Your task to perform on an android device: Is it going to rain this weekend? Image 0: 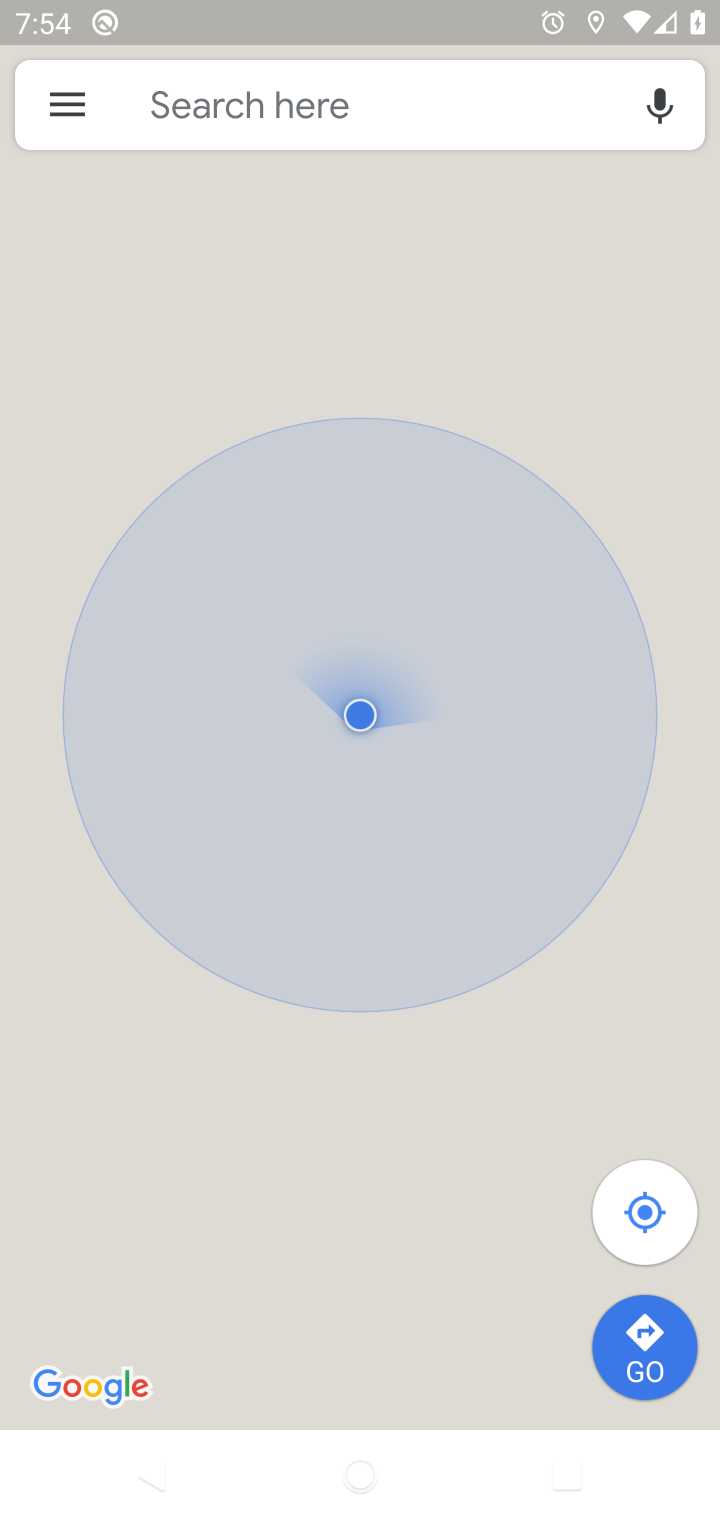
Step 0: press home button
Your task to perform on an android device: Is it going to rain this weekend? Image 1: 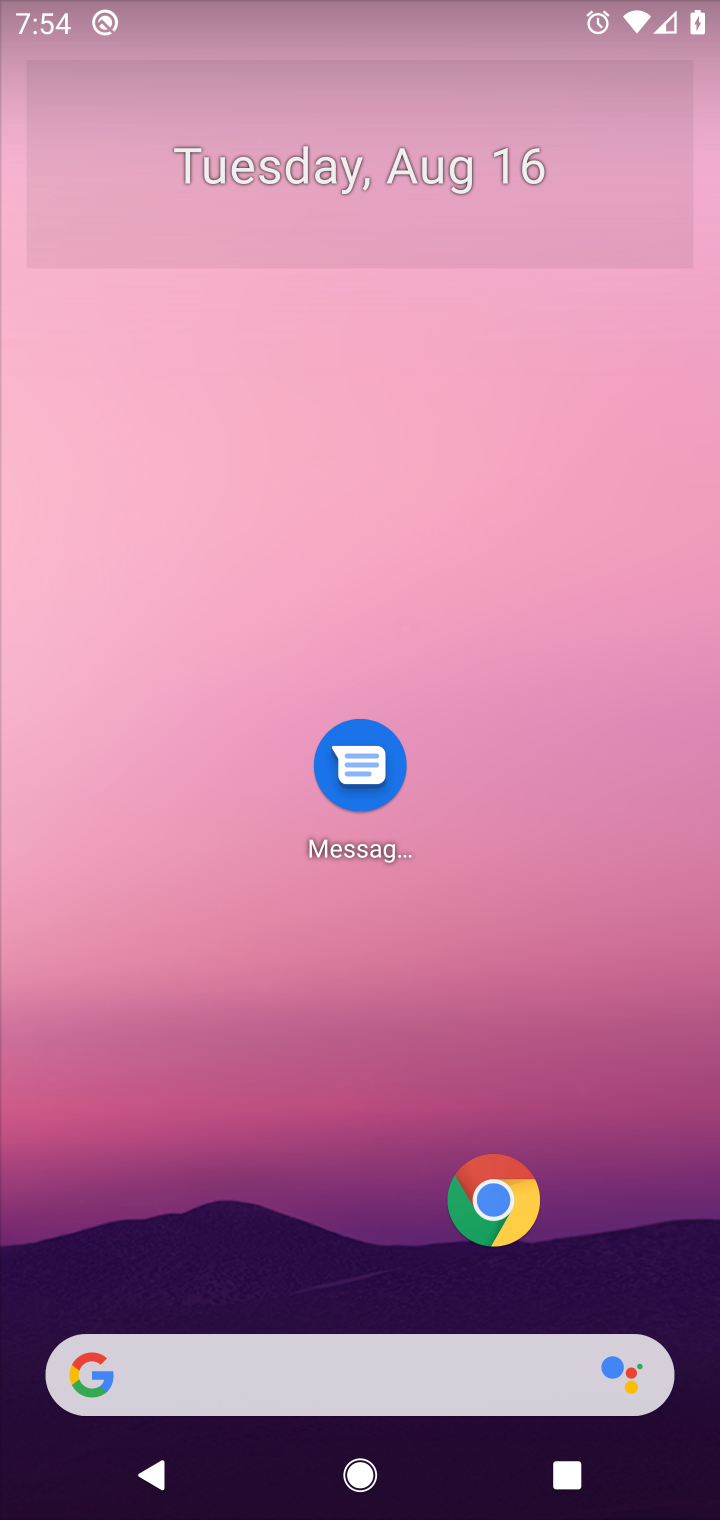
Step 1: click (255, 1365)
Your task to perform on an android device: Is it going to rain this weekend? Image 2: 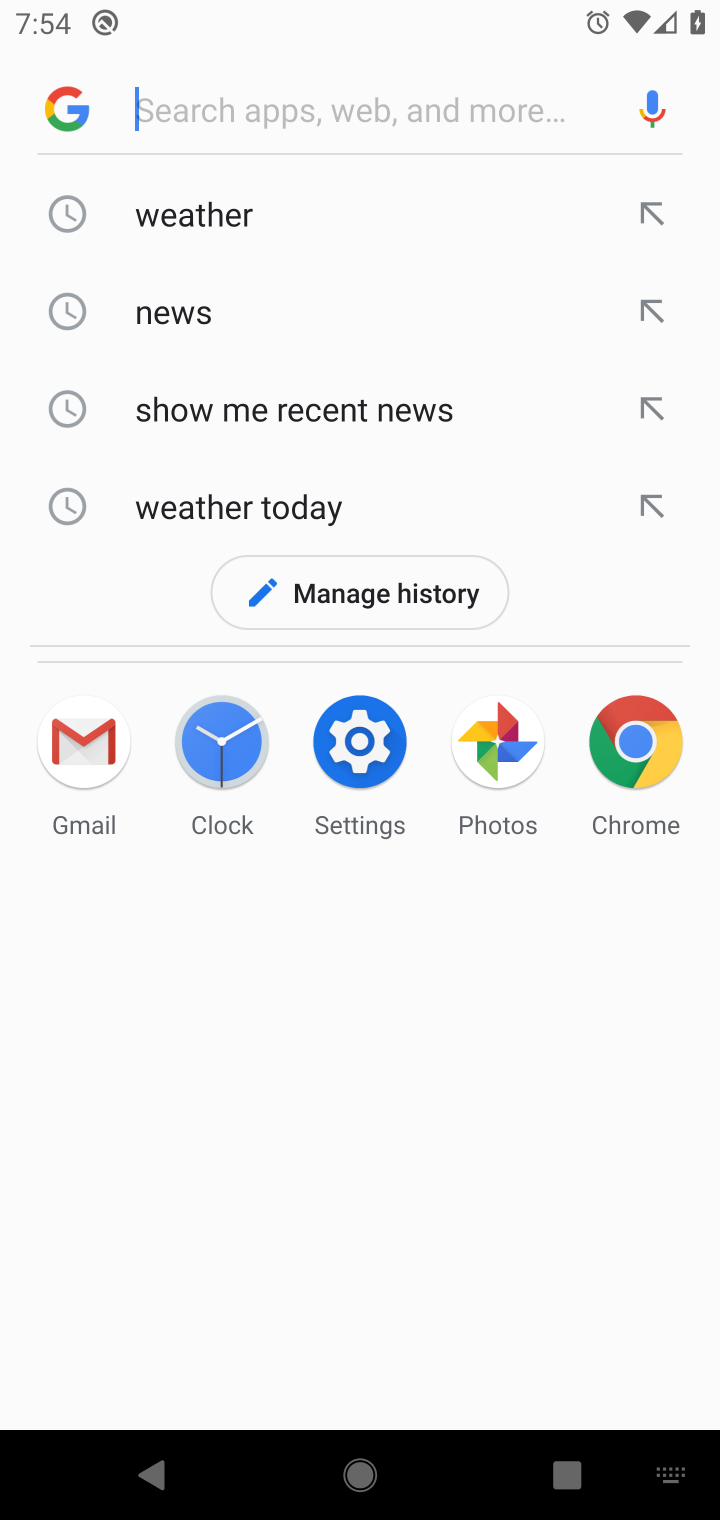
Step 2: click (21, 1513)
Your task to perform on an android device: Is it going to rain this weekend? Image 3: 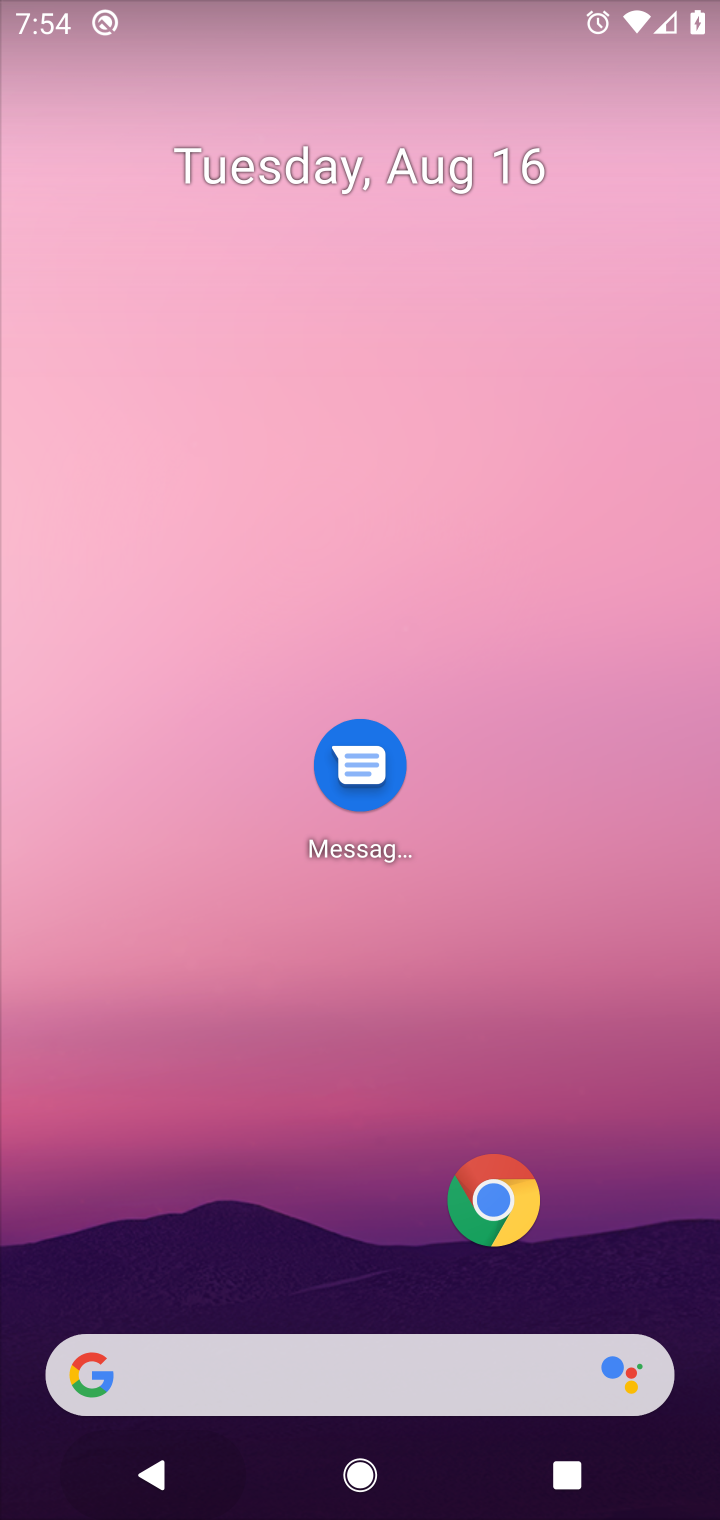
Step 3: click (203, 1394)
Your task to perform on an android device: Is it going to rain this weekend? Image 4: 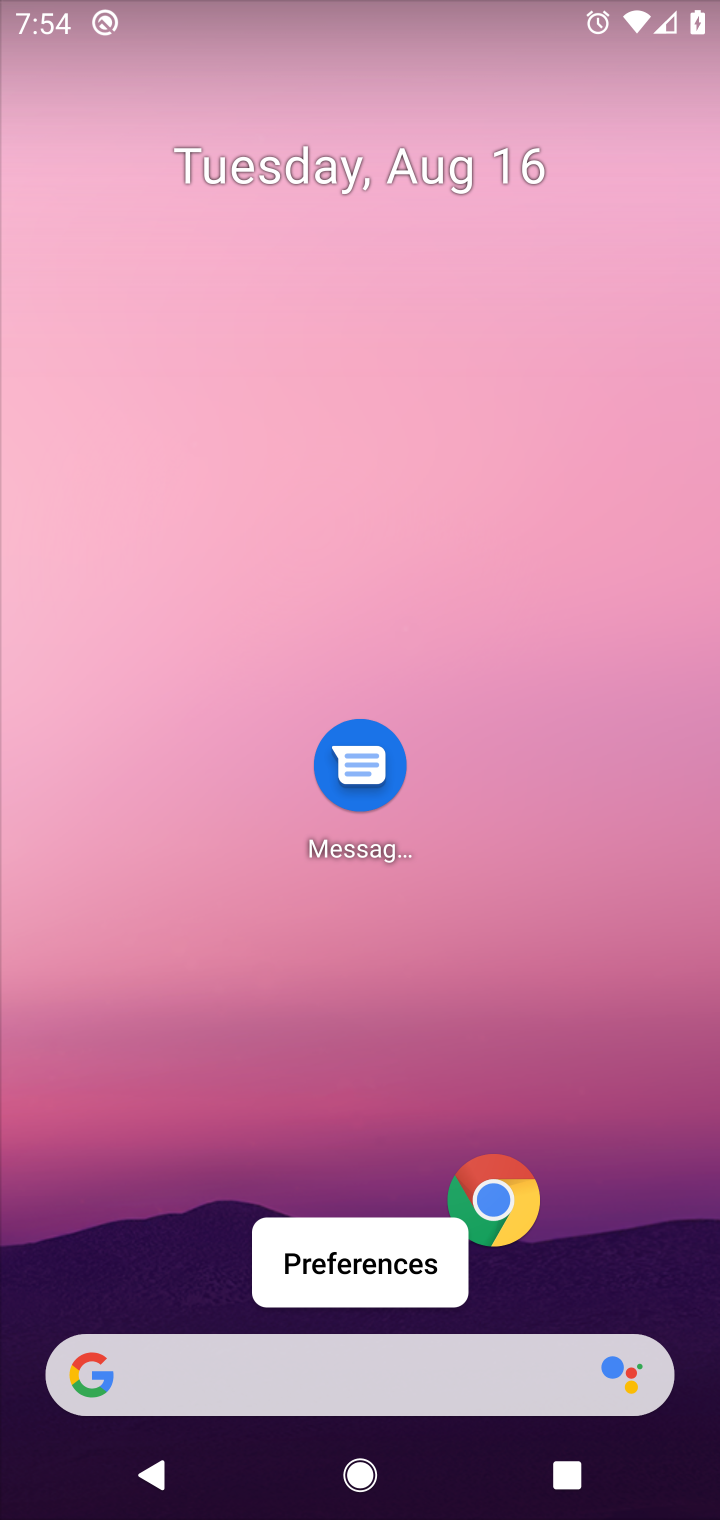
Step 4: click (182, 1376)
Your task to perform on an android device: Is it going to rain this weekend? Image 5: 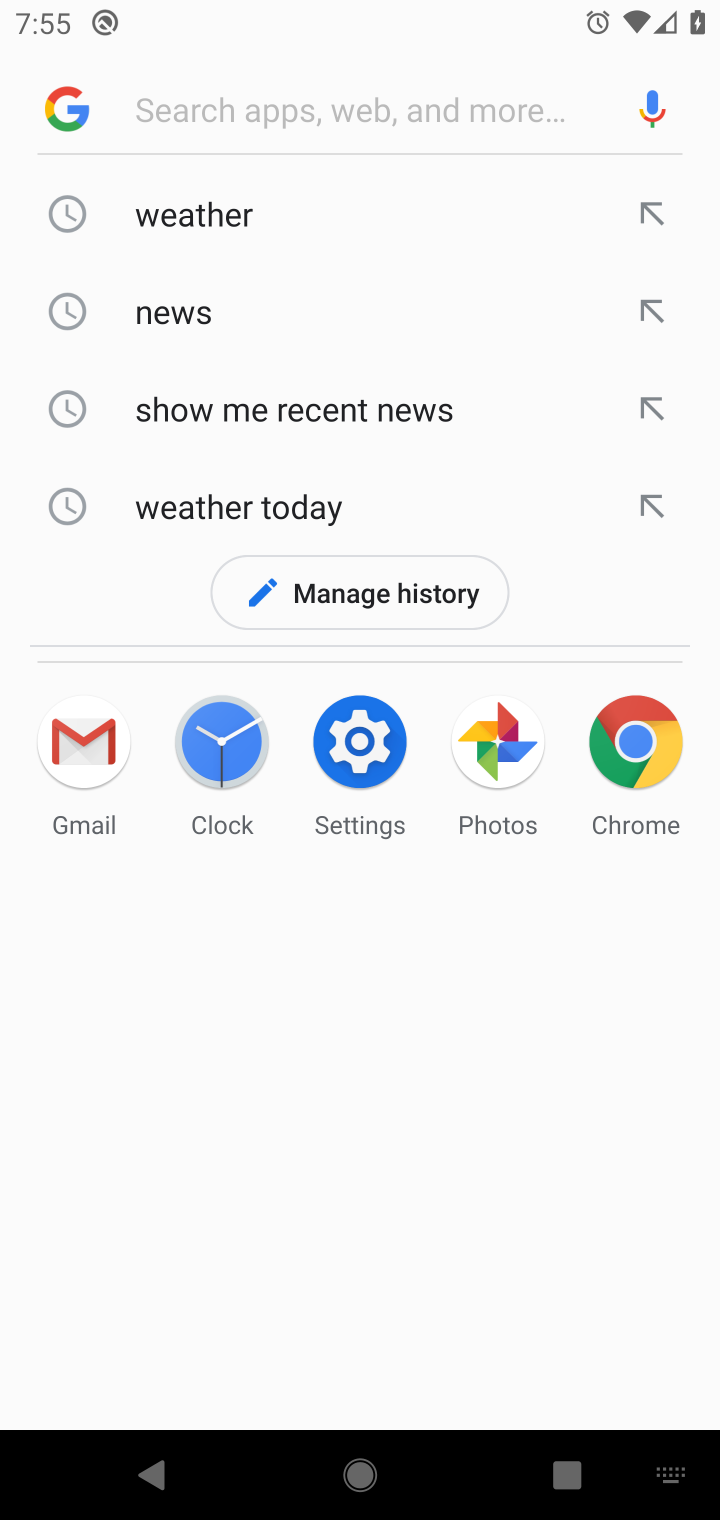
Step 5: type "Is it going to rain this weekend?"
Your task to perform on an android device: Is it going to rain this weekend? Image 6: 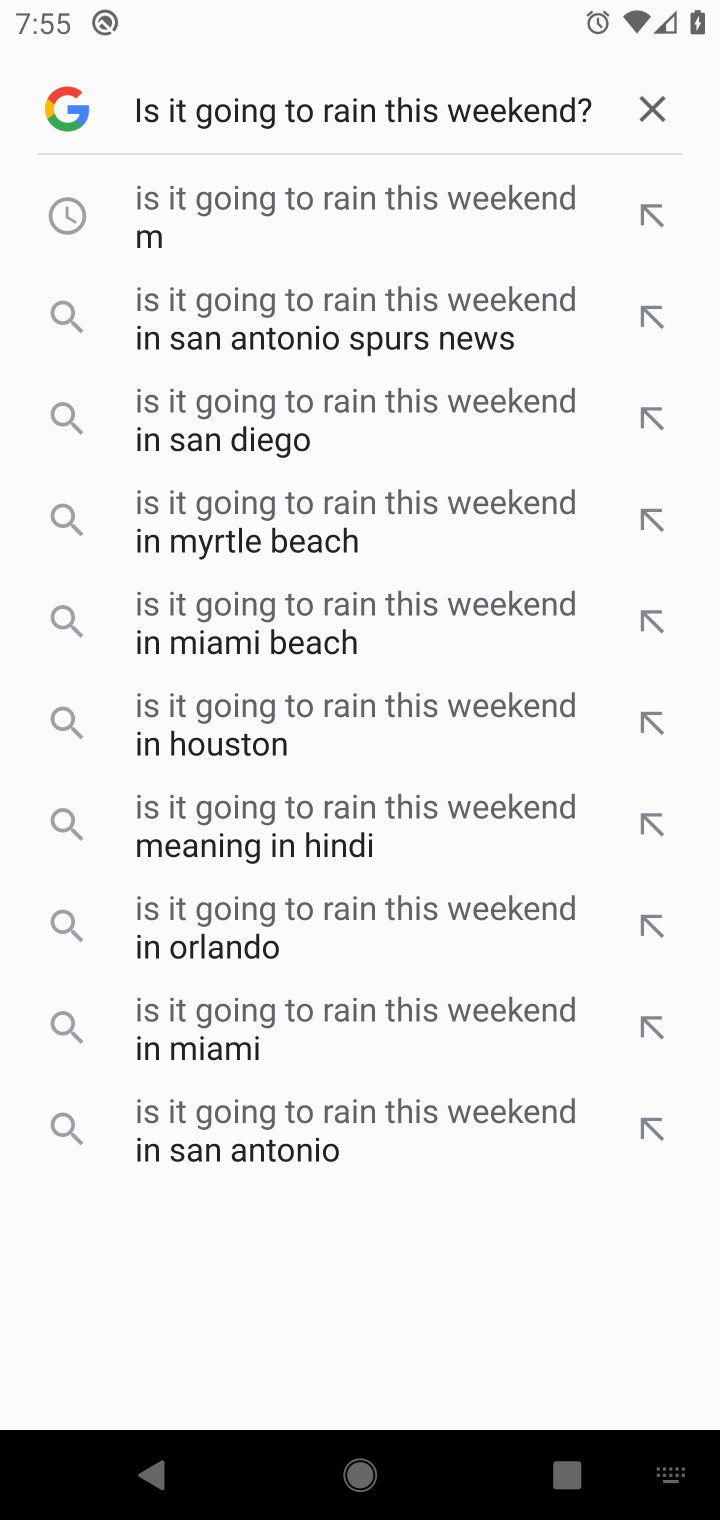
Step 6: type ""
Your task to perform on an android device: Is it going to rain this weekend? Image 7: 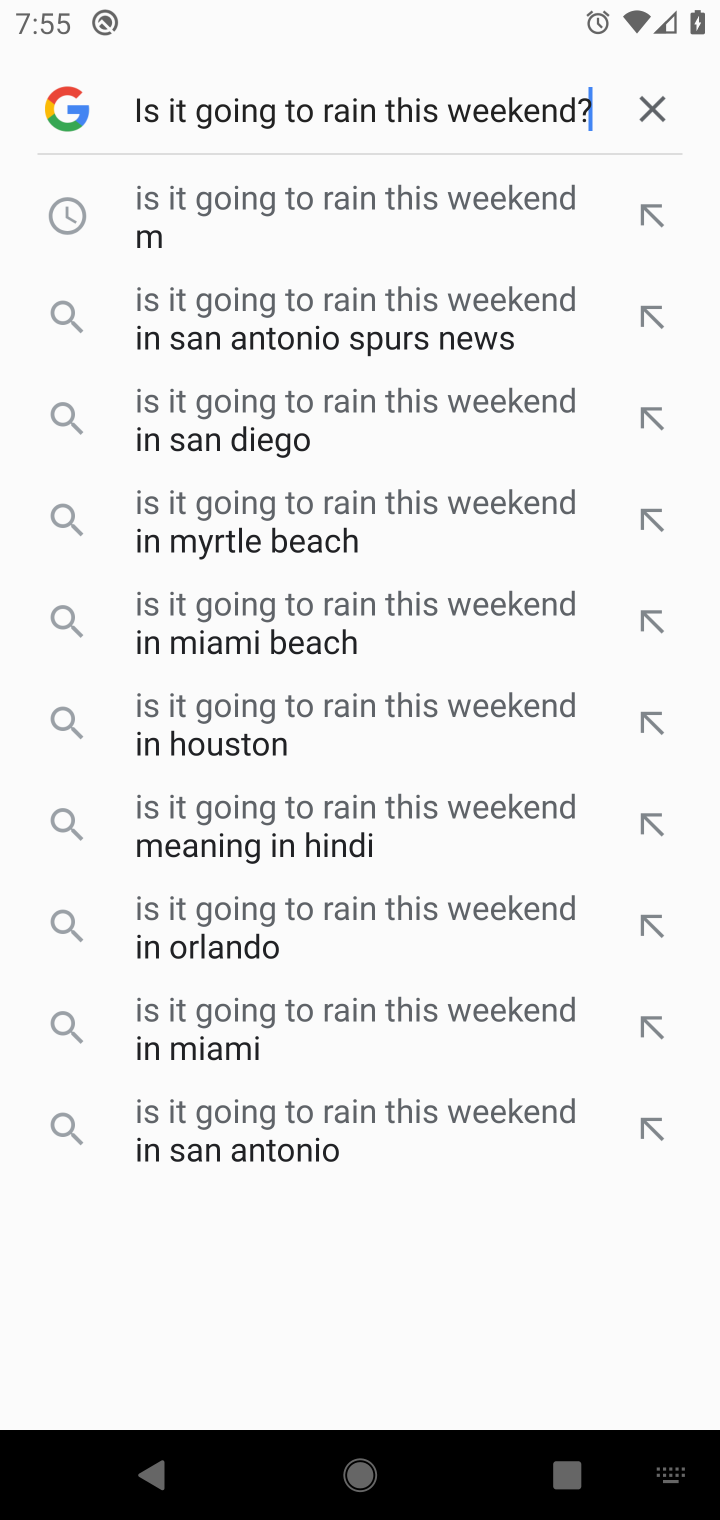
Step 7: type ""
Your task to perform on an android device: Is it going to rain this weekend? Image 8: 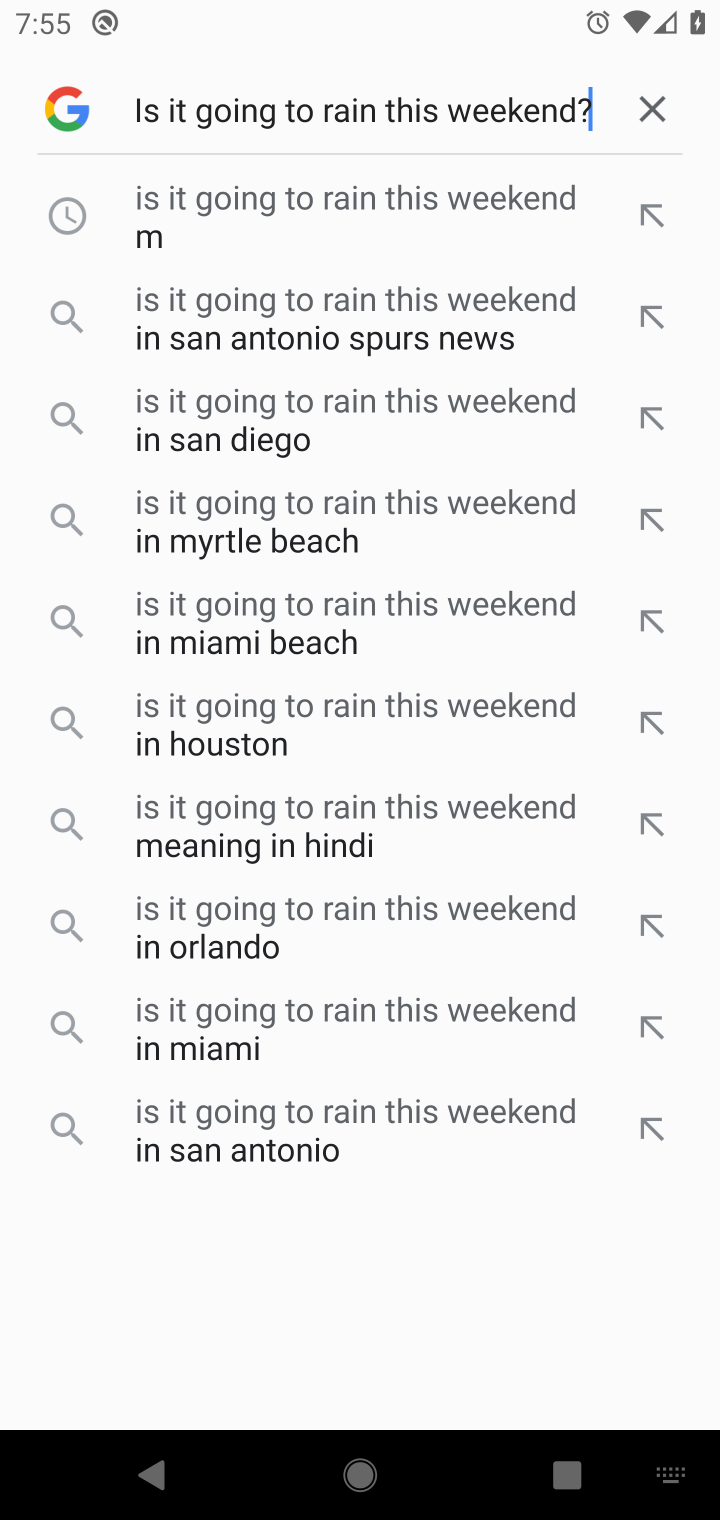
Step 8: task complete